Your task to perform on an android device: Search for sushi restaurants on Maps Image 0: 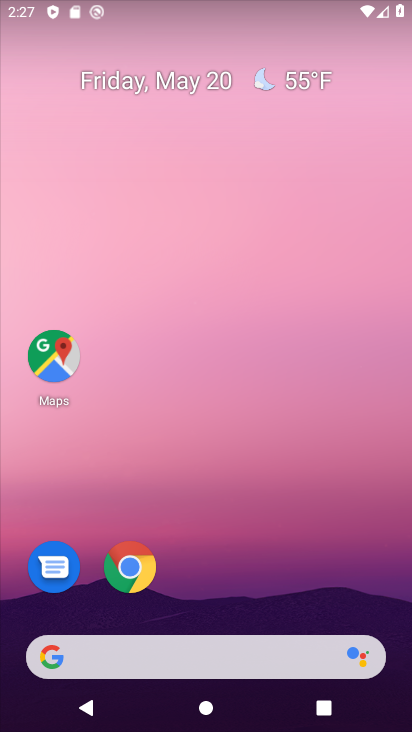
Step 0: click (56, 342)
Your task to perform on an android device: Search for sushi restaurants on Maps Image 1: 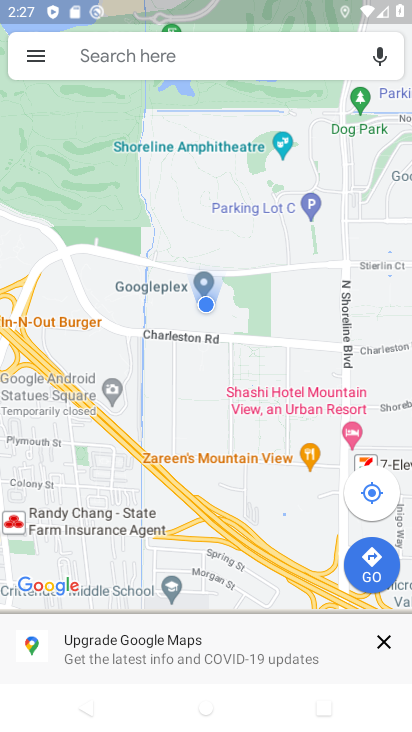
Step 1: click (125, 47)
Your task to perform on an android device: Search for sushi restaurants on Maps Image 2: 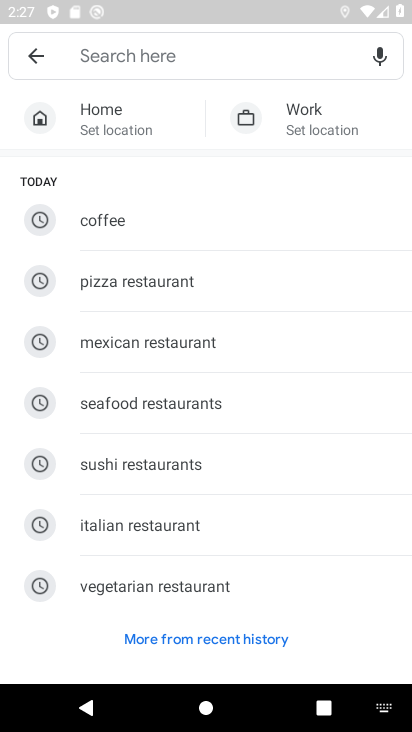
Step 2: click (131, 454)
Your task to perform on an android device: Search for sushi restaurants on Maps Image 3: 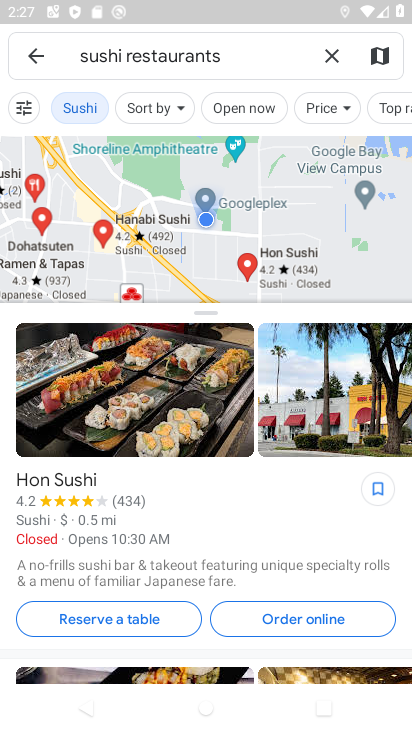
Step 3: task complete